Your task to perform on an android device: set the stopwatch Image 0: 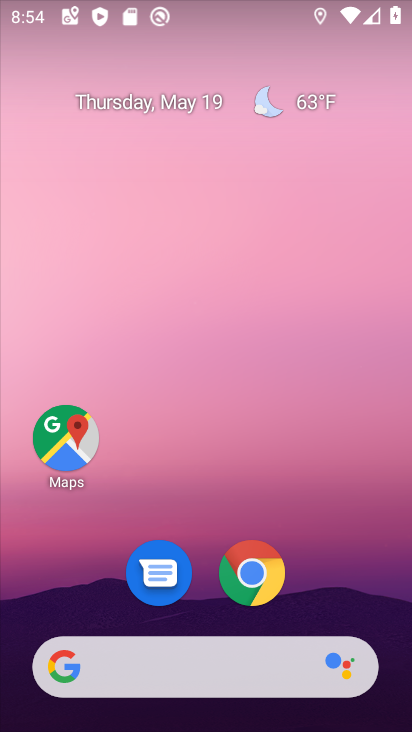
Step 0: drag from (332, 617) to (298, 711)
Your task to perform on an android device: set the stopwatch Image 1: 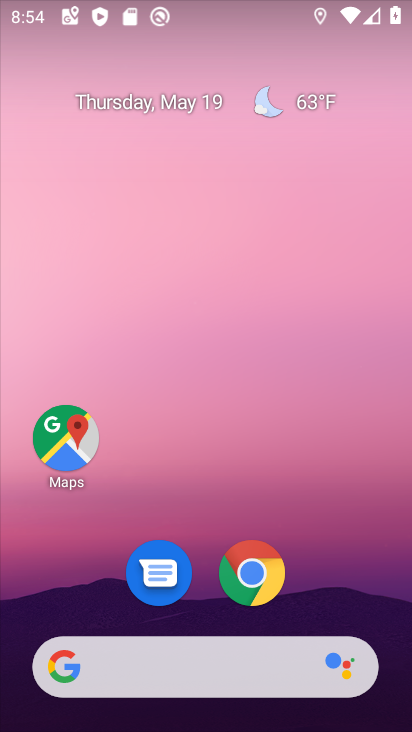
Step 1: drag from (324, 557) to (336, 32)
Your task to perform on an android device: set the stopwatch Image 2: 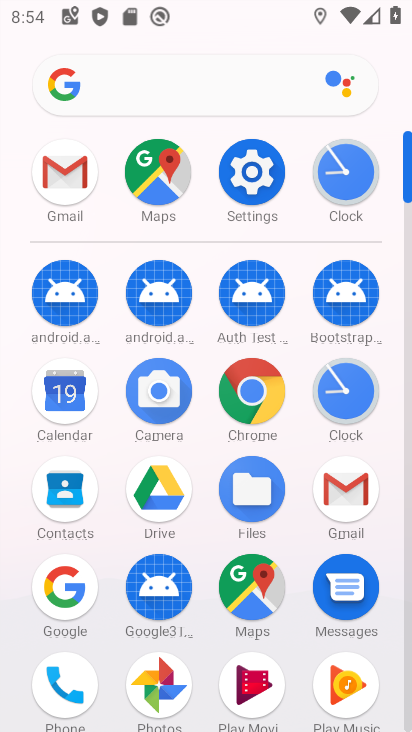
Step 2: click (336, 185)
Your task to perform on an android device: set the stopwatch Image 3: 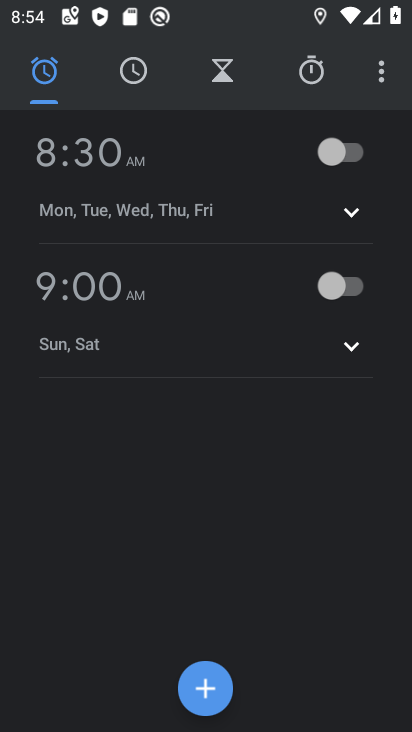
Step 3: click (310, 85)
Your task to perform on an android device: set the stopwatch Image 4: 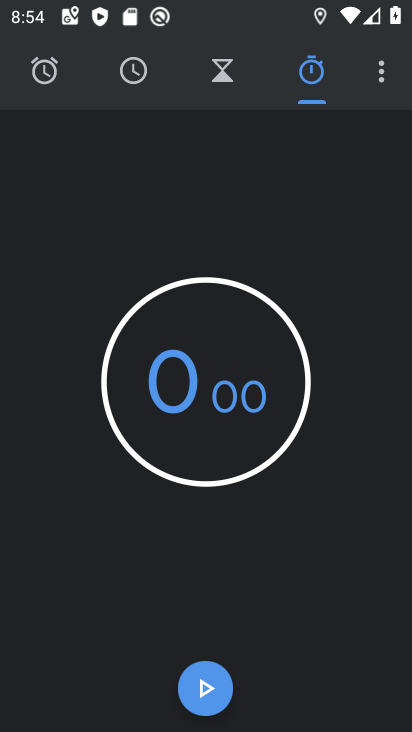
Step 4: click (205, 689)
Your task to perform on an android device: set the stopwatch Image 5: 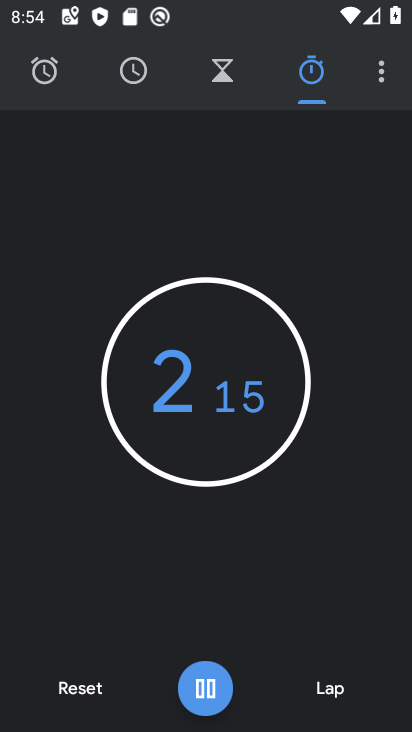
Step 5: click (205, 689)
Your task to perform on an android device: set the stopwatch Image 6: 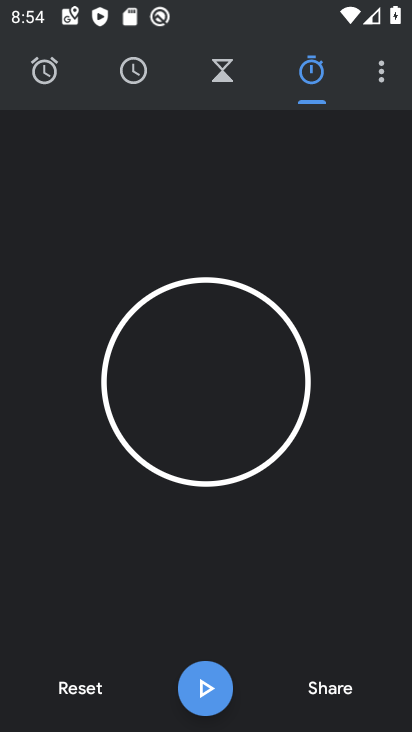
Step 6: task complete